Your task to perform on an android device: change notification settings in the gmail app Image 0: 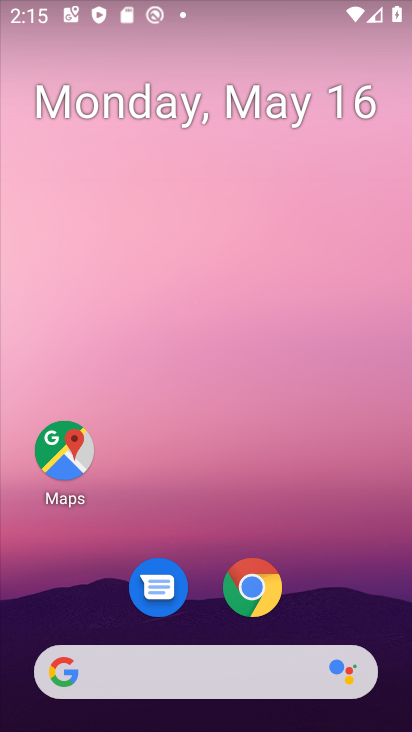
Step 0: drag from (388, 642) to (234, 323)
Your task to perform on an android device: change notification settings in the gmail app Image 1: 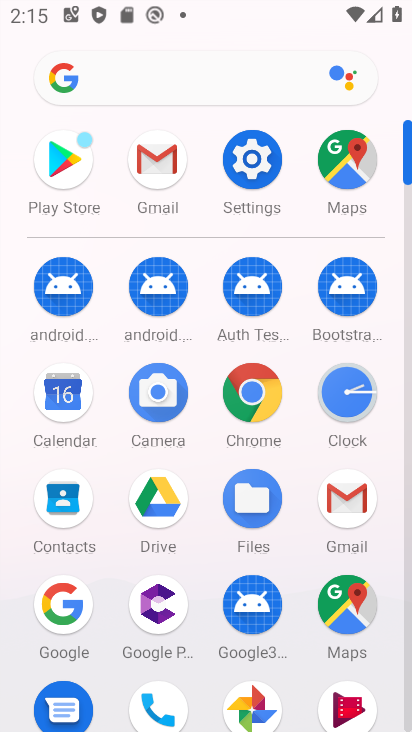
Step 1: click (251, 391)
Your task to perform on an android device: change notification settings in the gmail app Image 2: 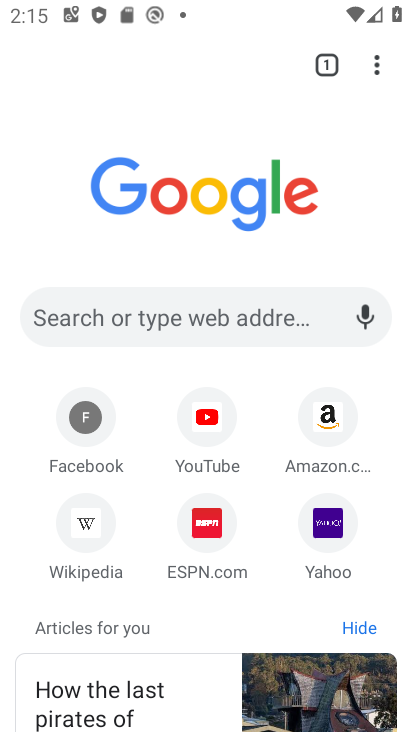
Step 2: click (370, 61)
Your task to perform on an android device: change notification settings in the gmail app Image 3: 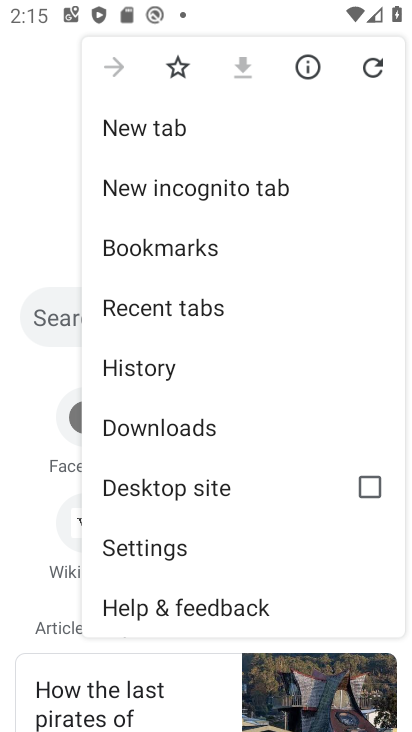
Step 3: click (193, 478)
Your task to perform on an android device: change notification settings in the gmail app Image 4: 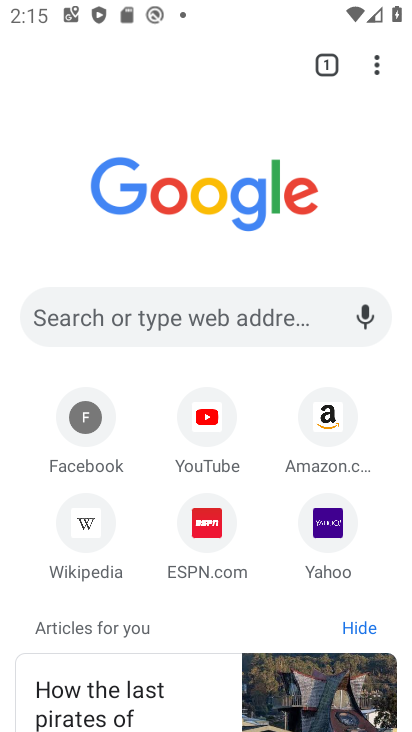
Step 4: click (373, 58)
Your task to perform on an android device: change notification settings in the gmail app Image 5: 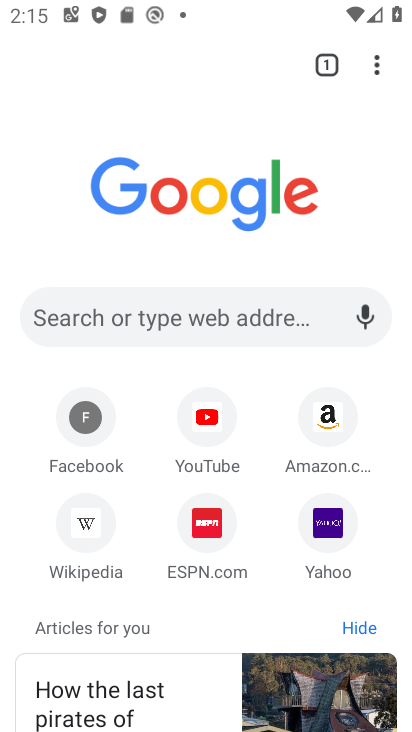
Step 5: click (371, 58)
Your task to perform on an android device: change notification settings in the gmail app Image 6: 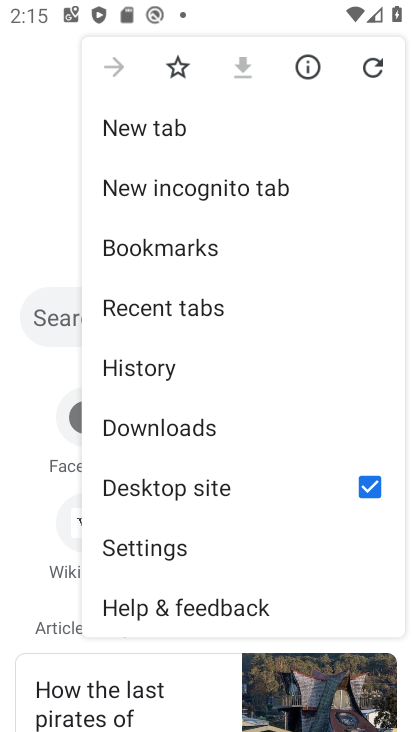
Step 6: press back button
Your task to perform on an android device: change notification settings in the gmail app Image 7: 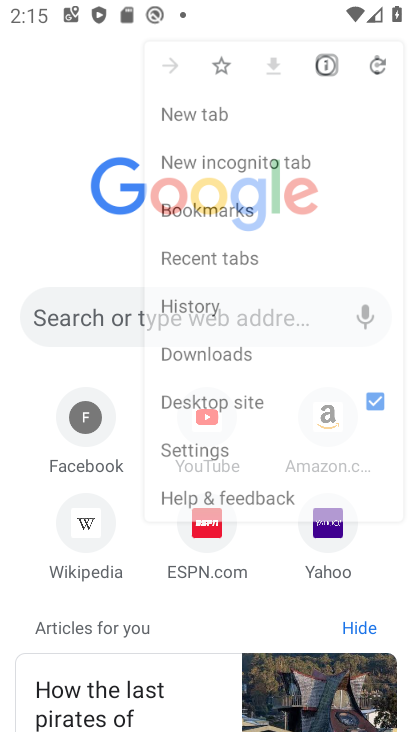
Step 7: press back button
Your task to perform on an android device: change notification settings in the gmail app Image 8: 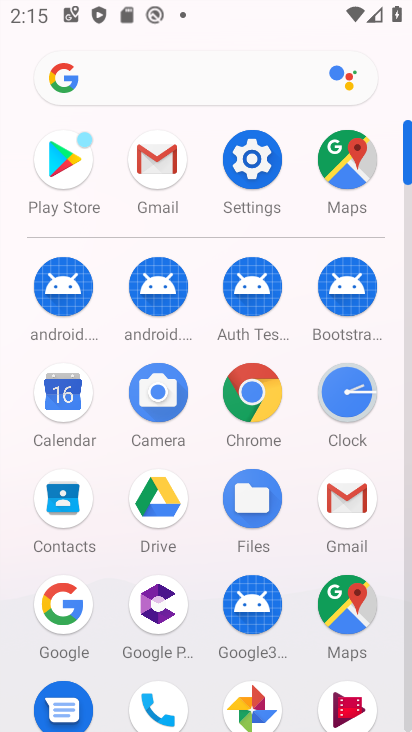
Step 8: click (335, 491)
Your task to perform on an android device: change notification settings in the gmail app Image 9: 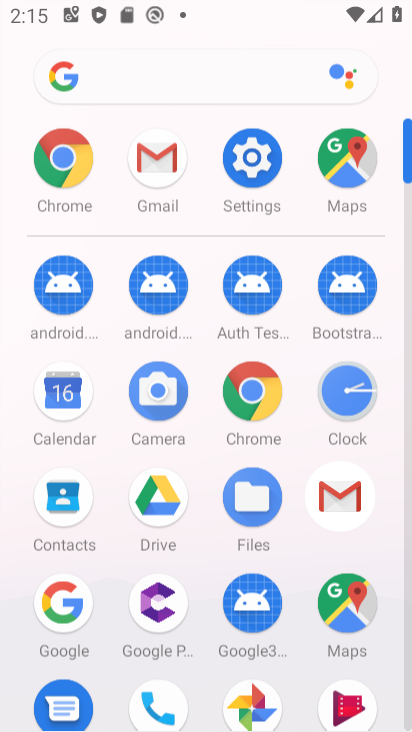
Step 9: click (336, 491)
Your task to perform on an android device: change notification settings in the gmail app Image 10: 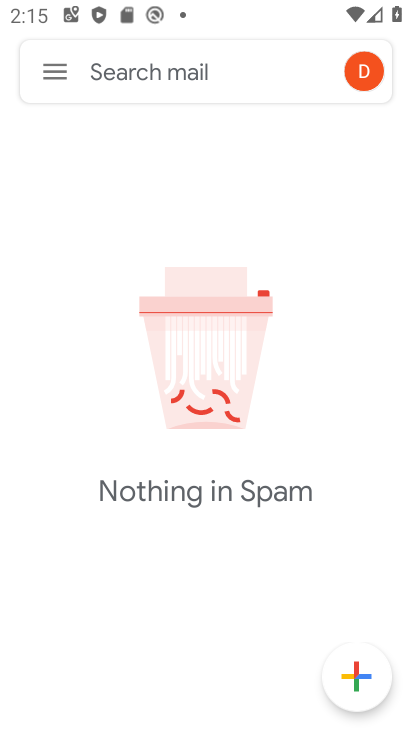
Step 10: click (48, 78)
Your task to perform on an android device: change notification settings in the gmail app Image 11: 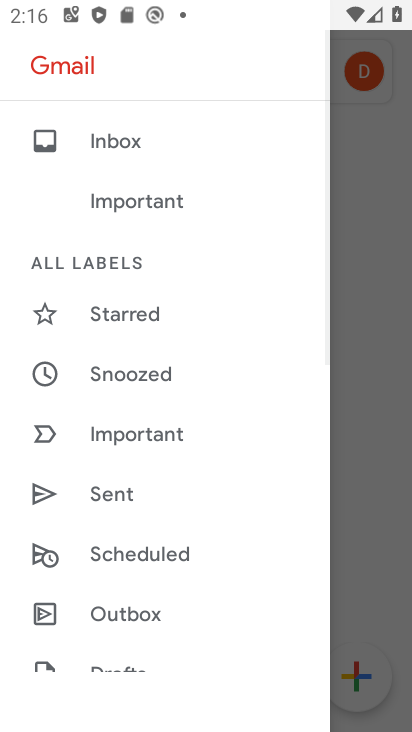
Step 11: drag from (200, 529) to (151, 195)
Your task to perform on an android device: change notification settings in the gmail app Image 12: 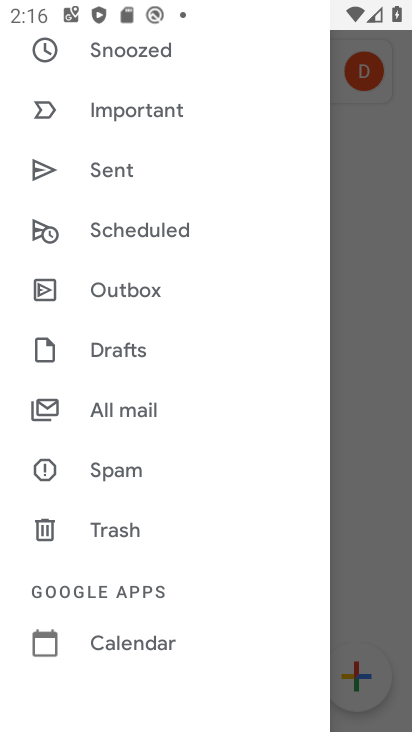
Step 12: drag from (175, 565) to (127, 181)
Your task to perform on an android device: change notification settings in the gmail app Image 13: 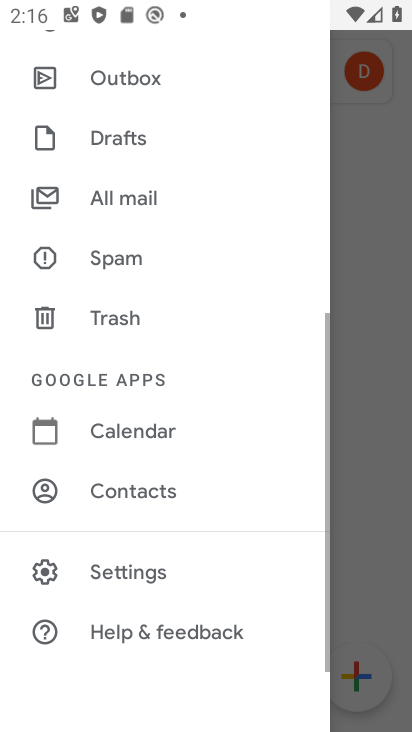
Step 13: click (114, 569)
Your task to perform on an android device: change notification settings in the gmail app Image 14: 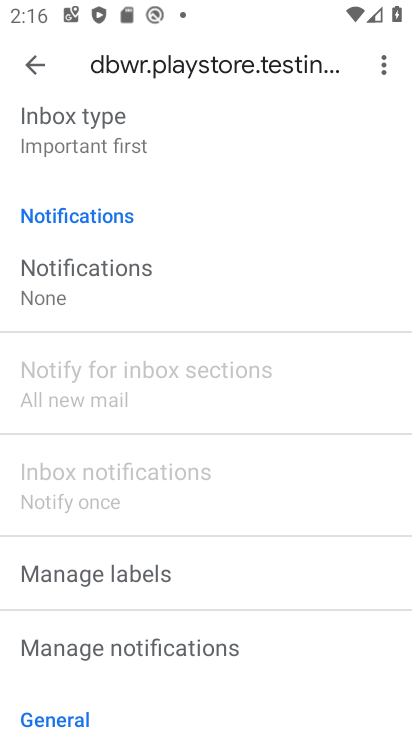
Step 14: click (81, 284)
Your task to perform on an android device: change notification settings in the gmail app Image 15: 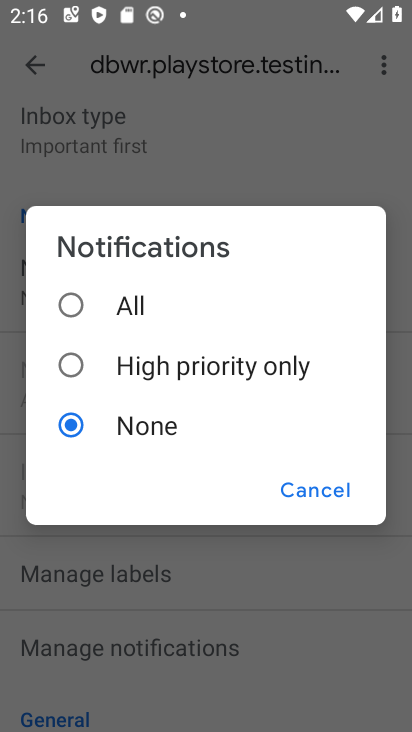
Step 15: click (64, 299)
Your task to perform on an android device: change notification settings in the gmail app Image 16: 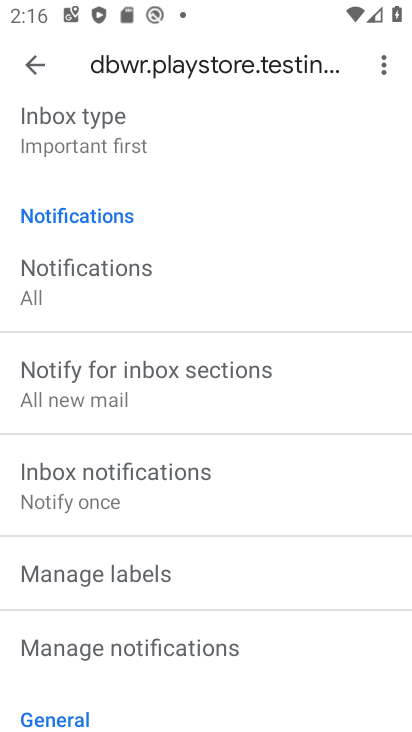
Step 16: task complete